Your task to perform on an android device: remove spam from my inbox in the gmail app Image 0: 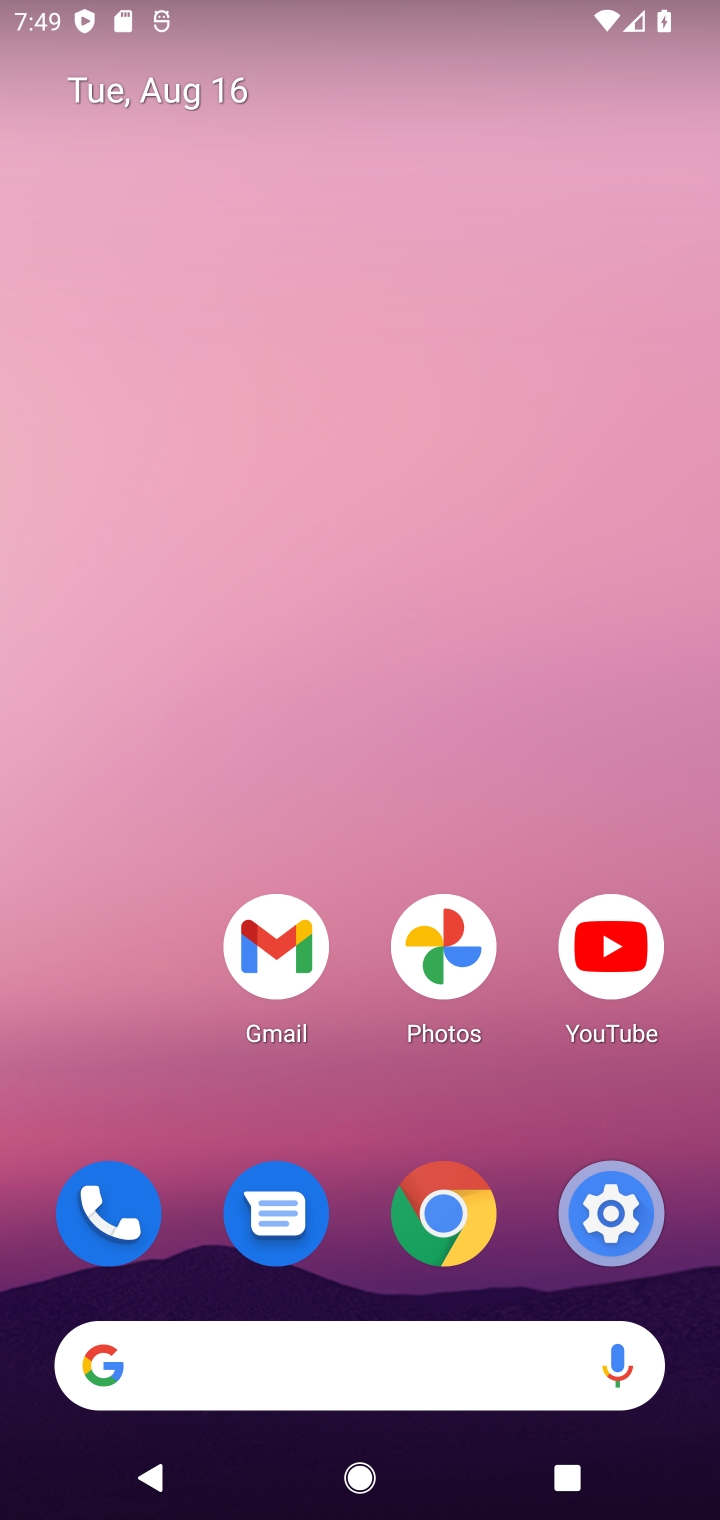
Step 0: click (292, 985)
Your task to perform on an android device: remove spam from my inbox in the gmail app Image 1: 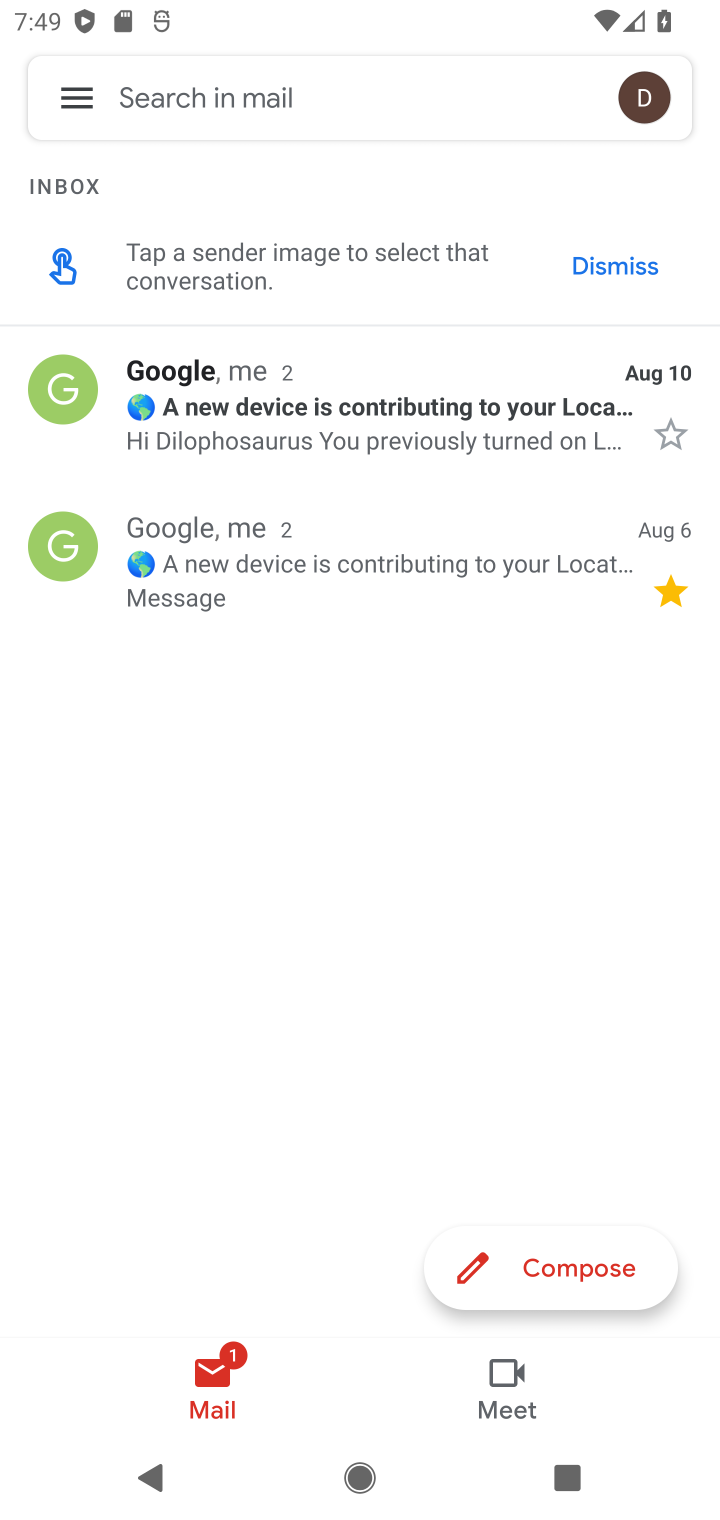
Step 1: task complete